Your task to perform on an android device: Open settings Image 0: 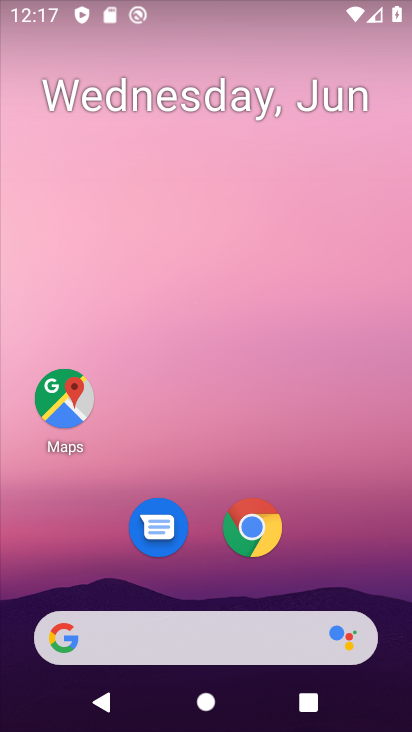
Step 0: drag from (188, 610) to (43, 14)
Your task to perform on an android device: Open settings Image 1: 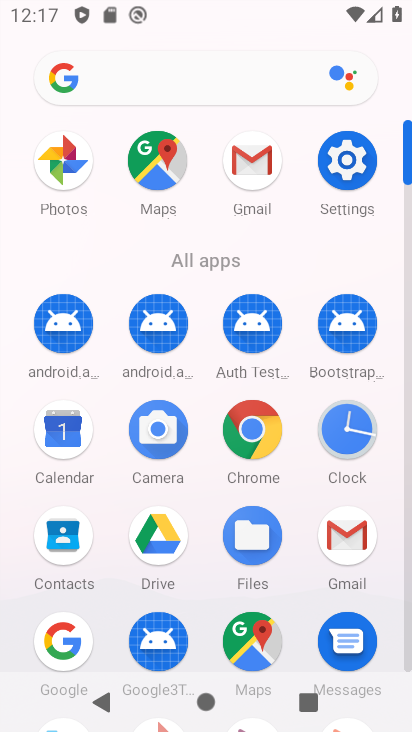
Step 1: click (338, 167)
Your task to perform on an android device: Open settings Image 2: 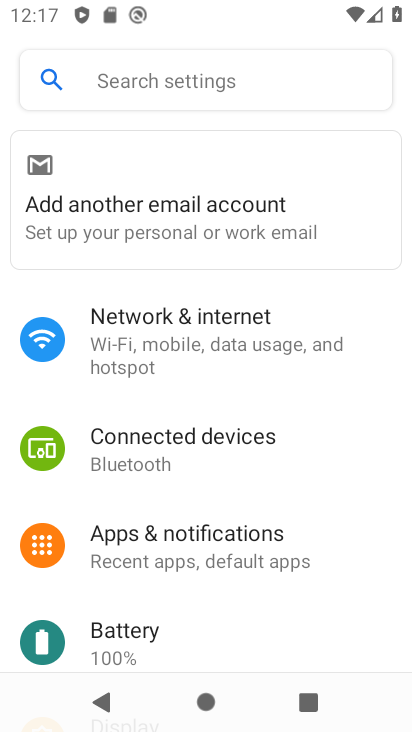
Step 2: task complete